Your task to perform on an android device: Open the web browser Image 0: 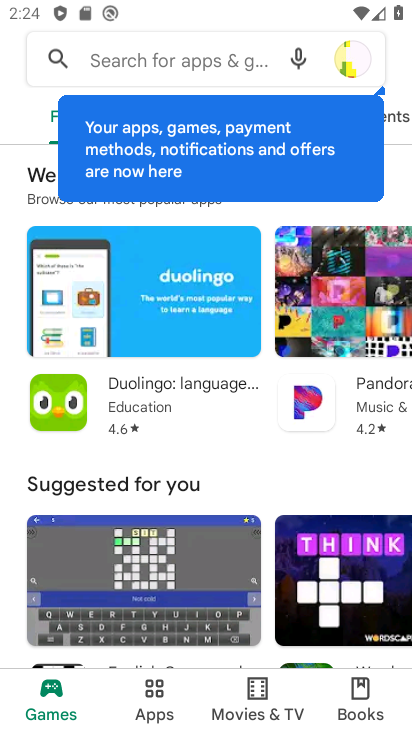
Step 0: press home button
Your task to perform on an android device: Open the web browser Image 1: 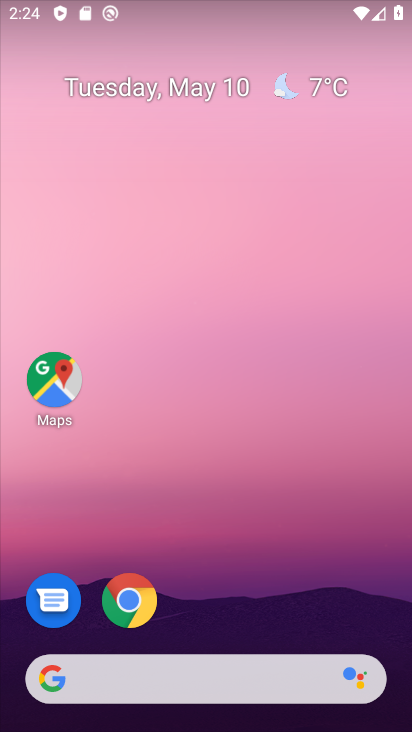
Step 1: click (122, 591)
Your task to perform on an android device: Open the web browser Image 2: 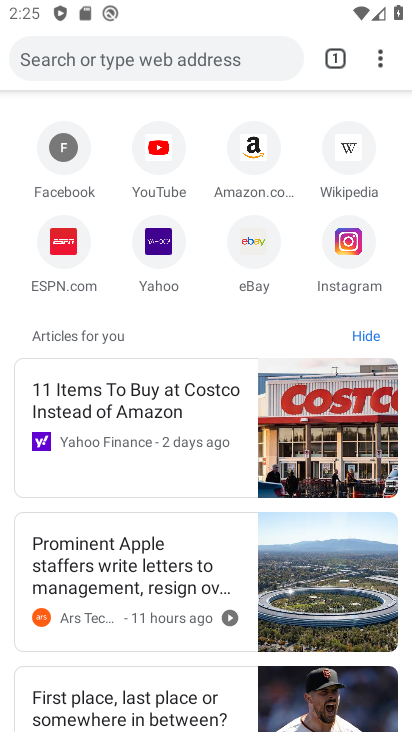
Step 2: task complete